Your task to perform on an android device: clear history in the chrome app Image 0: 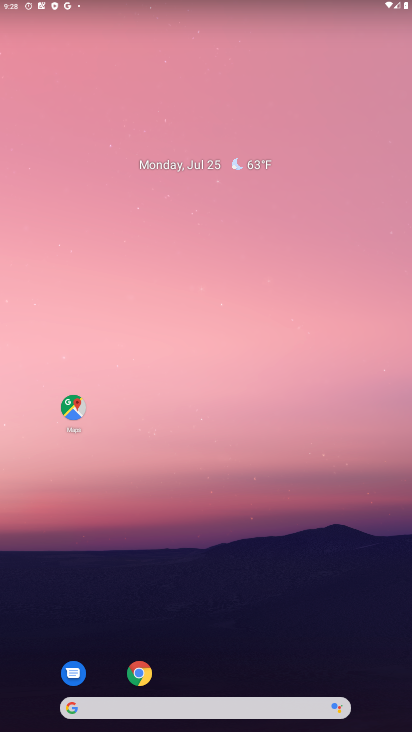
Step 0: click (131, 678)
Your task to perform on an android device: clear history in the chrome app Image 1: 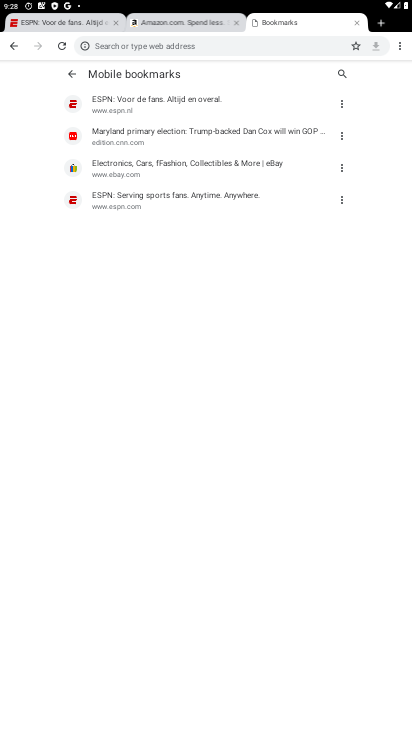
Step 1: drag from (399, 49) to (309, 133)
Your task to perform on an android device: clear history in the chrome app Image 2: 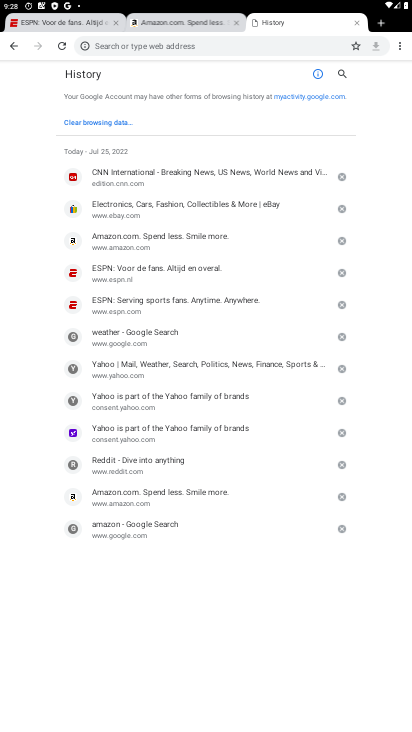
Step 2: drag from (195, 467) to (224, 162)
Your task to perform on an android device: clear history in the chrome app Image 3: 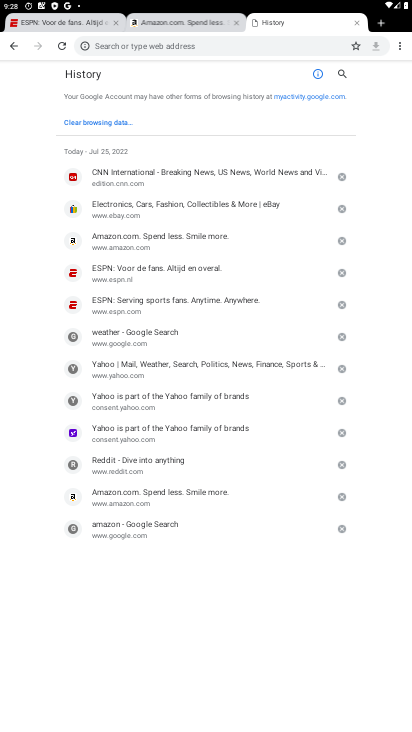
Step 3: click (92, 117)
Your task to perform on an android device: clear history in the chrome app Image 4: 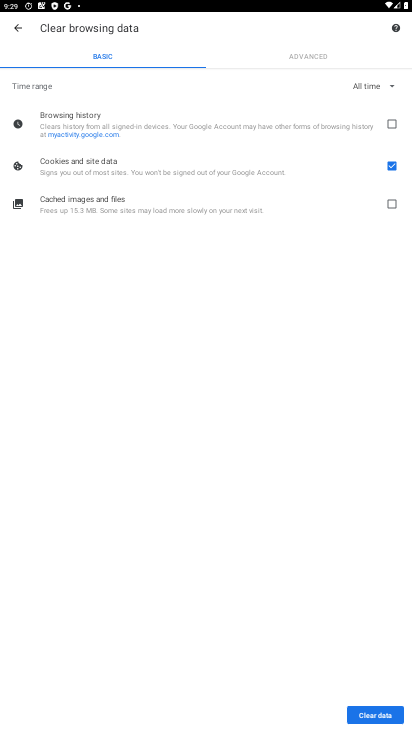
Step 4: click (391, 122)
Your task to perform on an android device: clear history in the chrome app Image 5: 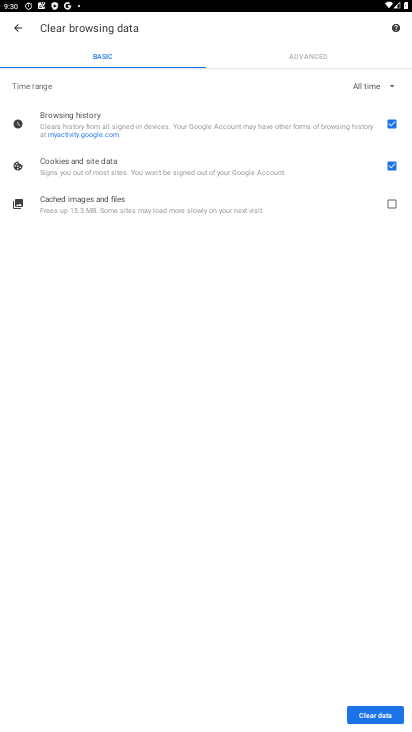
Step 5: click (370, 718)
Your task to perform on an android device: clear history in the chrome app Image 6: 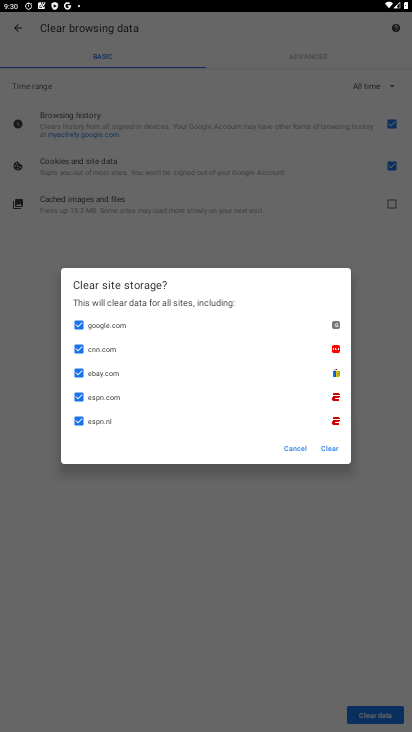
Step 6: click (335, 448)
Your task to perform on an android device: clear history in the chrome app Image 7: 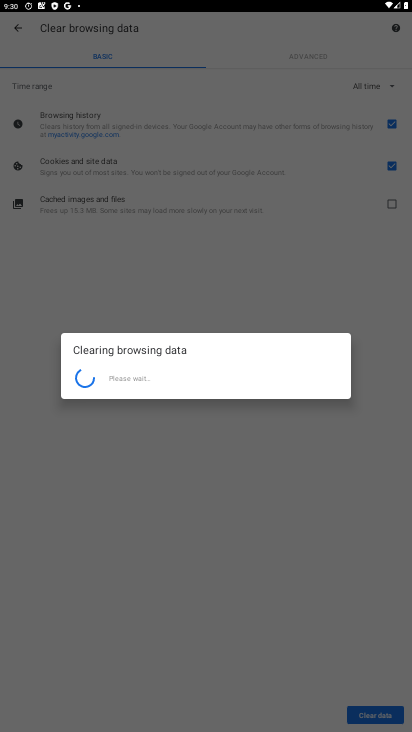
Step 7: task complete